Your task to perform on an android device: Go to Yahoo.com Image 0: 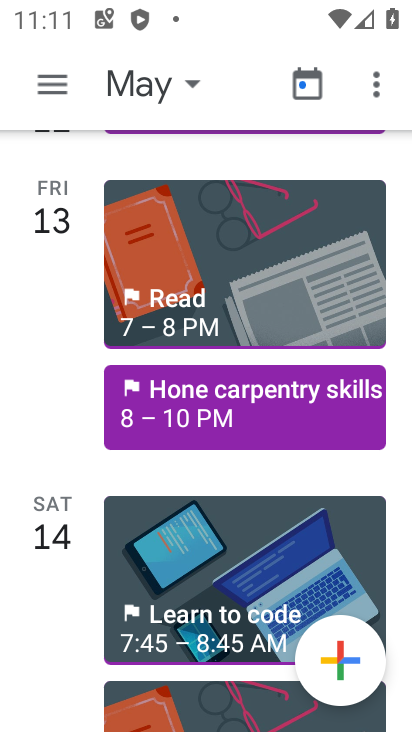
Step 0: press home button
Your task to perform on an android device: Go to Yahoo.com Image 1: 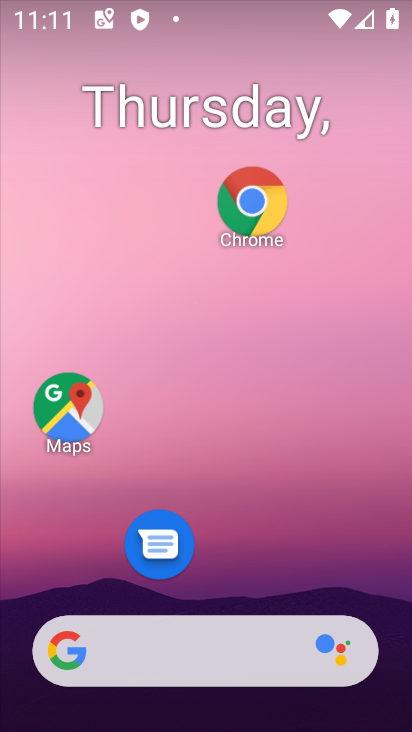
Step 1: click (251, 192)
Your task to perform on an android device: Go to Yahoo.com Image 2: 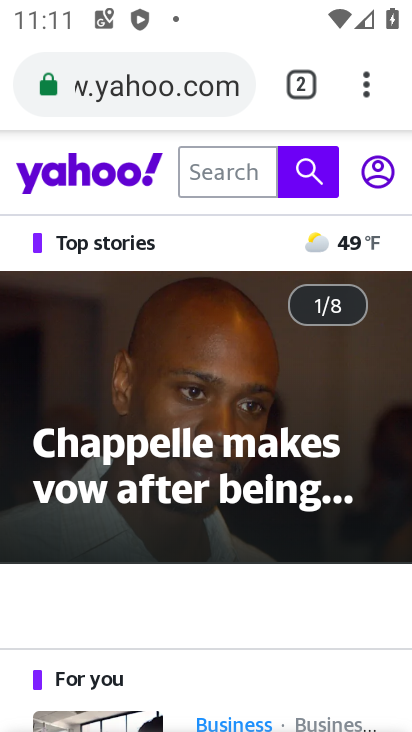
Step 2: task complete